Your task to perform on an android device: What's the weather going to be tomorrow? Image 0: 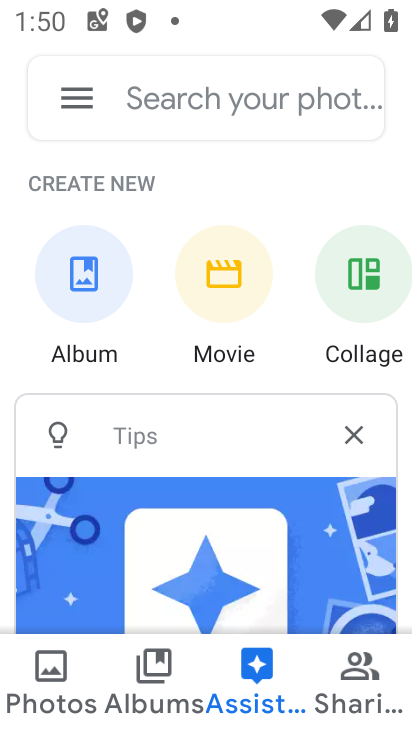
Step 0: press home button
Your task to perform on an android device: What's the weather going to be tomorrow? Image 1: 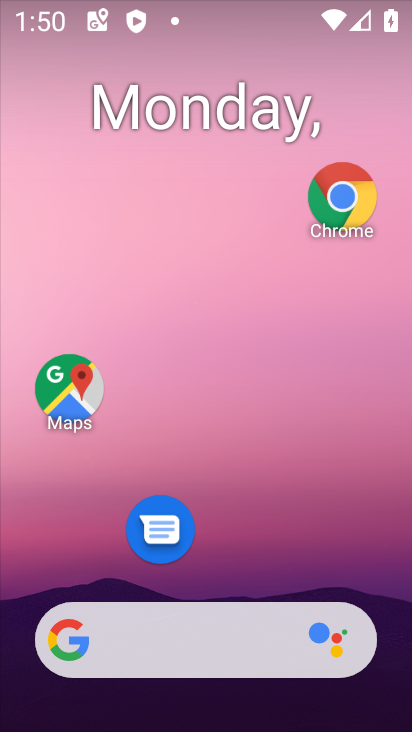
Step 1: click (194, 622)
Your task to perform on an android device: What's the weather going to be tomorrow? Image 2: 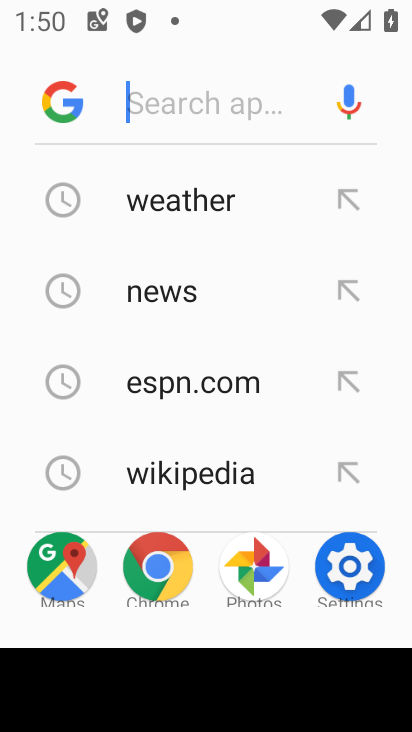
Step 2: click (184, 208)
Your task to perform on an android device: What's the weather going to be tomorrow? Image 3: 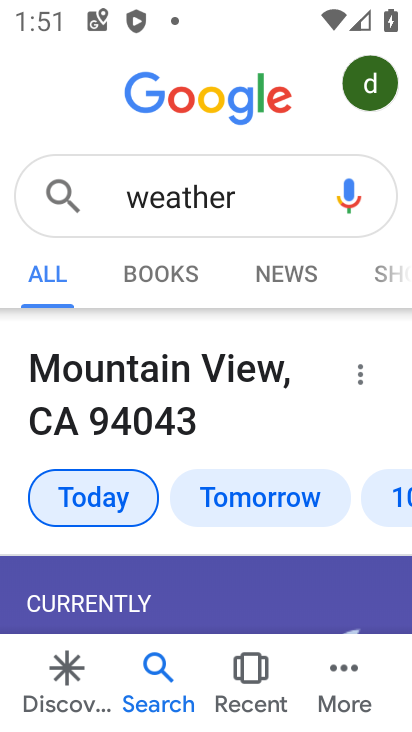
Step 3: press back button
Your task to perform on an android device: What's the weather going to be tomorrow? Image 4: 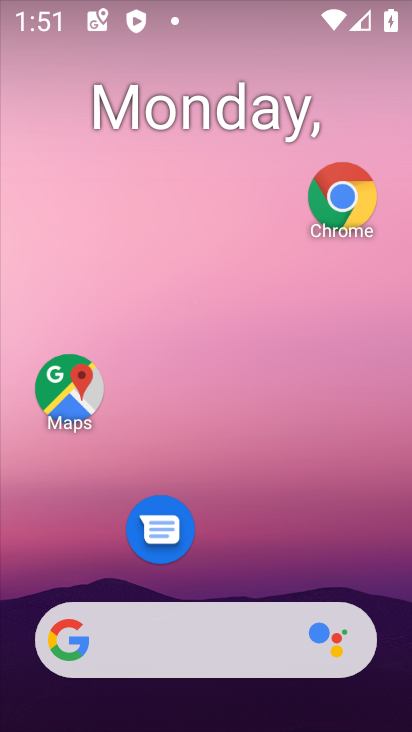
Step 4: click (225, 642)
Your task to perform on an android device: What's the weather going to be tomorrow? Image 5: 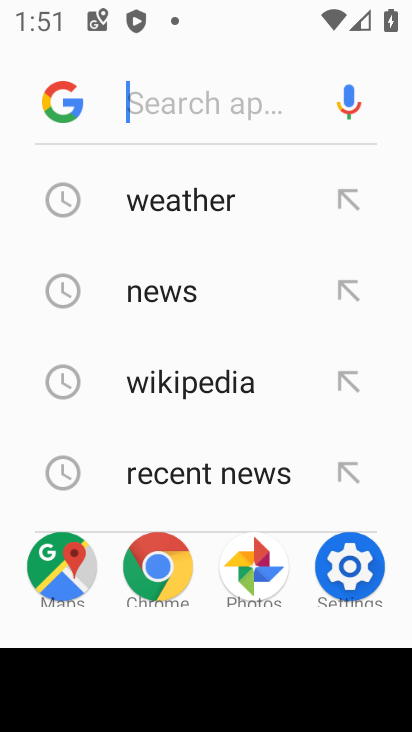
Step 5: click (200, 181)
Your task to perform on an android device: What's the weather going to be tomorrow? Image 6: 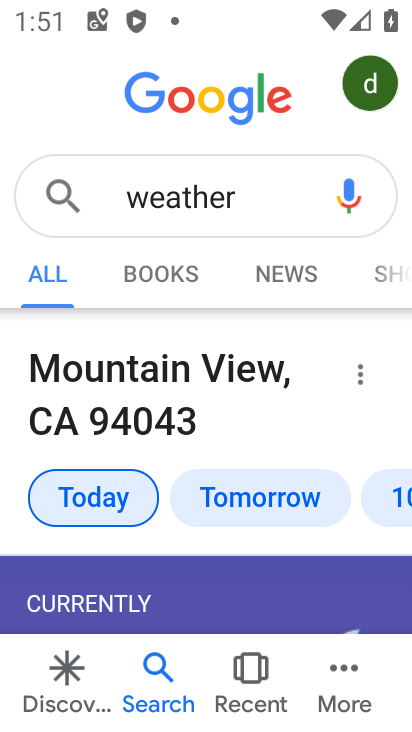
Step 6: click (244, 507)
Your task to perform on an android device: What's the weather going to be tomorrow? Image 7: 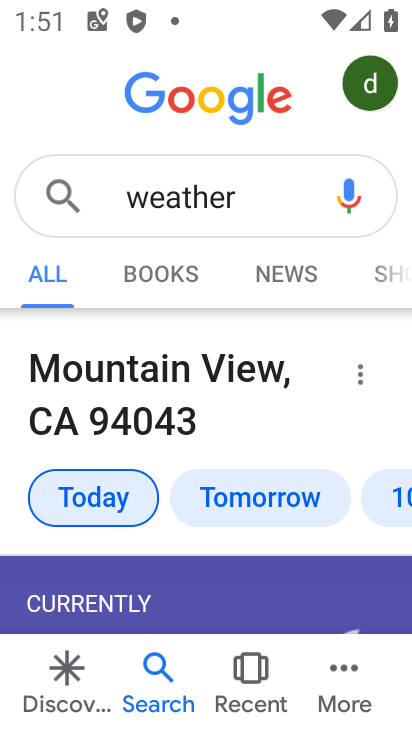
Step 7: task complete